Your task to perform on an android device: Open internet settings Image 0: 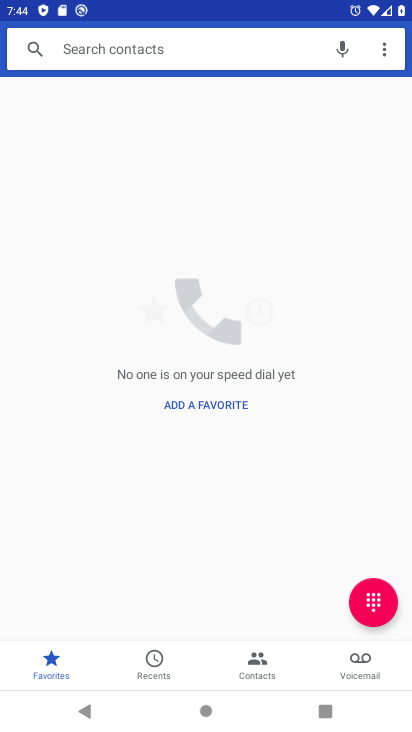
Step 0: press home button
Your task to perform on an android device: Open internet settings Image 1: 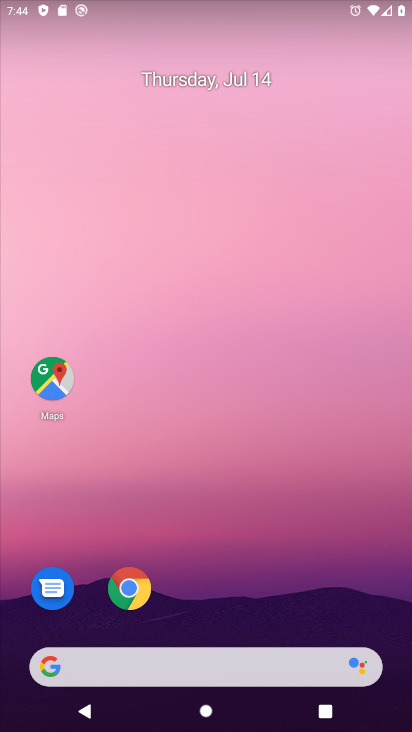
Step 1: drag from (46, 708) to (238, 16)
Your task to perform on an android device: Open internet settings Image 2: 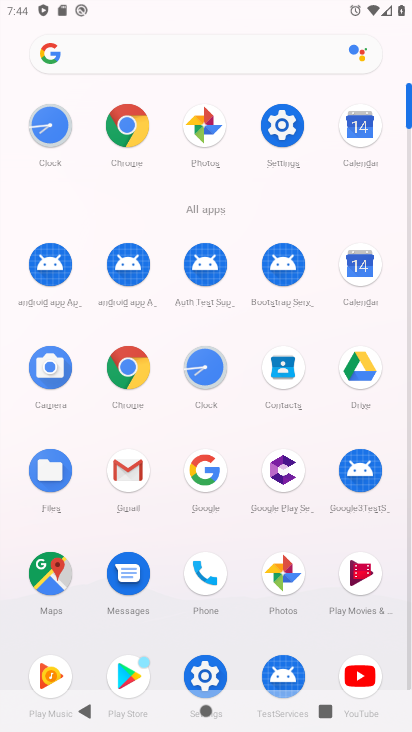
Step 2: click (213, 673)
Your task to perform on an android device: Open internet settings Image 3: 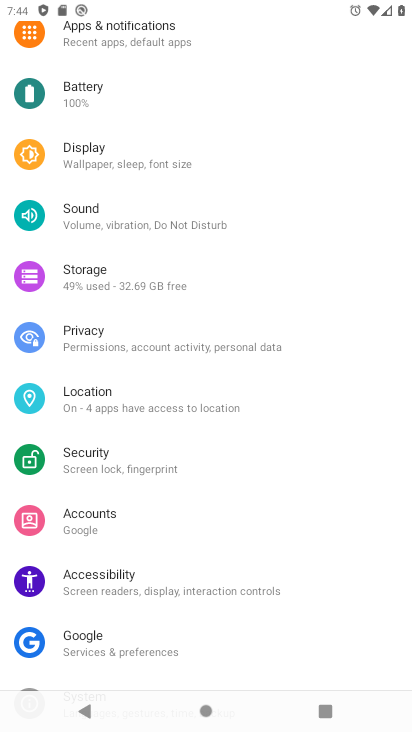
Step 3: drag from (214, 115) to (186, 725)
Your task to perform on an android device: Open internet settings Image 4: 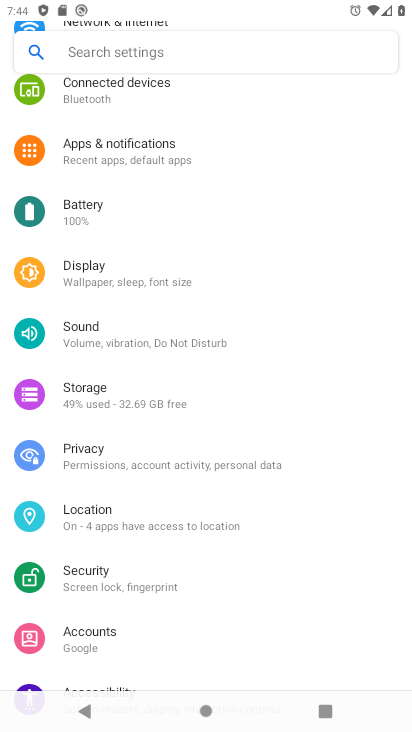
Step 4: drag from (186, 103) to (230, 731)
Your task to perform on an android device: Open internet settings Image 5: 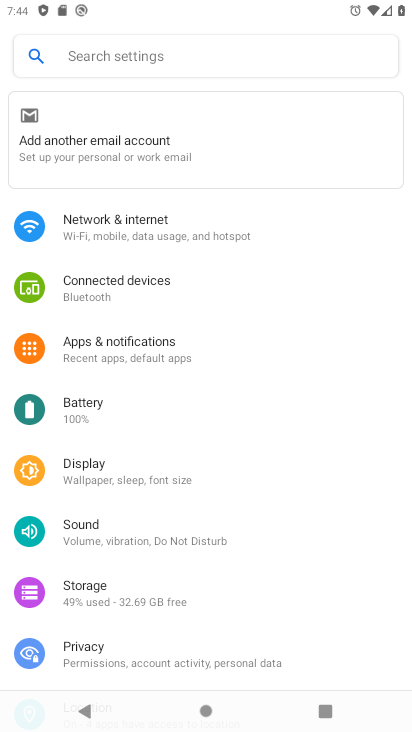
Step 5: click (125, 215)
Your task to perform on an android device: Open internet settings Image 6: 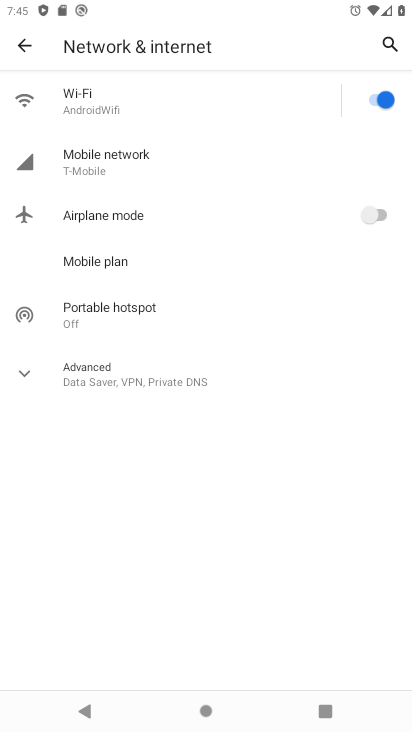
Step 6: task complete